Your task to perform on an android device: Search for dining sets on article.com Image 0: 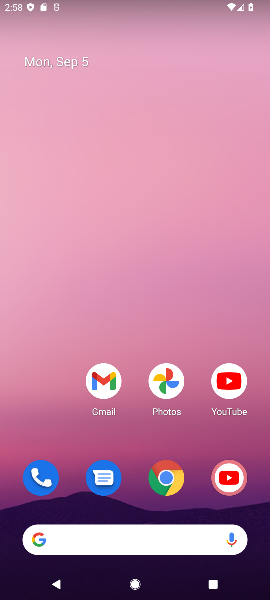
Step 0: drag from (267, 326) to (1, 85)
Your task to perform on an android device: Search for dining sets on article.com Image 1: 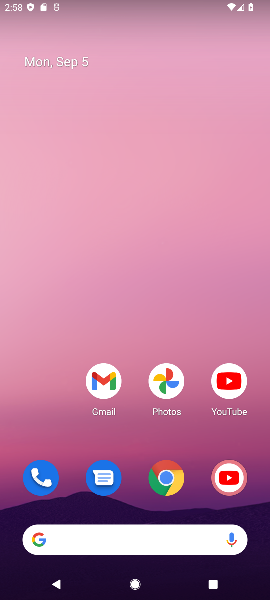
Step 1: drag from (60, 296) to (85, 63)
Your task to perform on an android device: Search for dining sets on article.com Image 2: 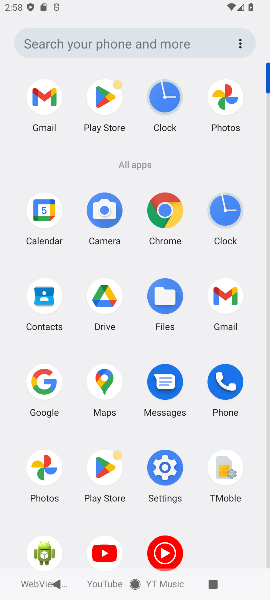
Step 2: click (152, 216)
Your task to perform on an android device: Search for dining sets on article.com Image 3: 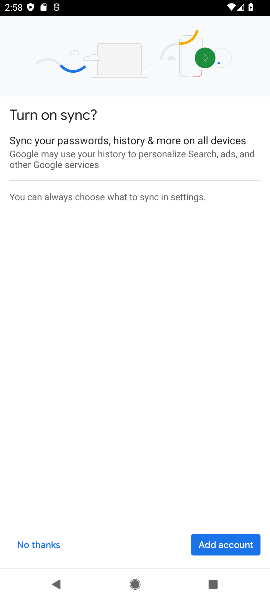
Step 3: click (228, 550)
Your task to perform on an android device: Search for dining sets on article.com Image 4: 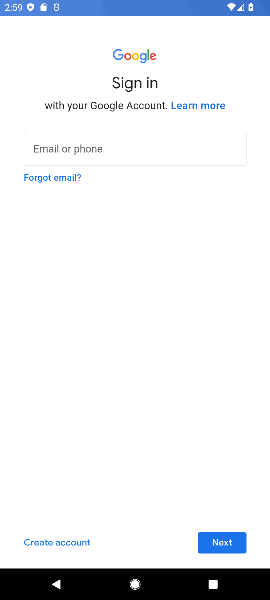
Step 4: task complete